Your task to perform on an android device: open the mobile data screen to see how much data has been used Image 0: 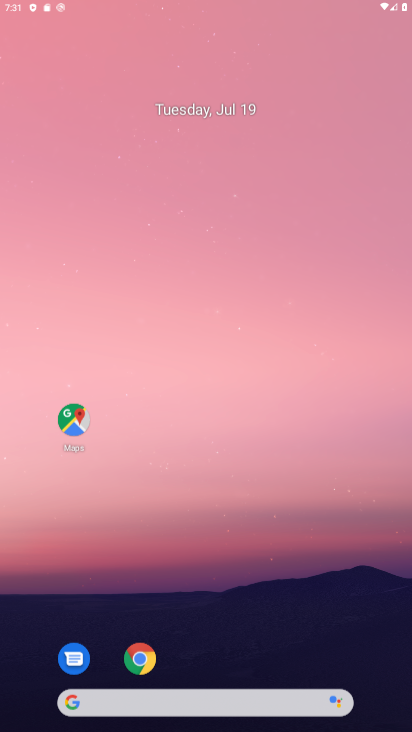
Step 0: drag from (220, 367) to (230, 86)
Your task to perform on an android device: open the mobile data screen to see how much data has been used Image 1: 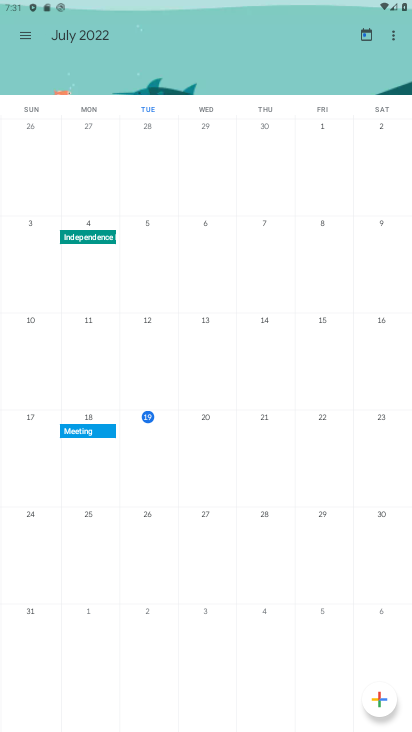
Step 1: press home button
Your task to perform on an android device: open the mobile data screen to see how much data has been used Image 2: 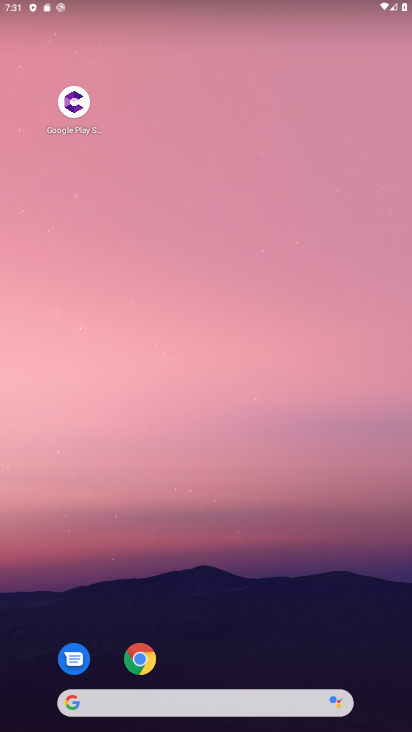
Step 2: drag from (234, 682) to (218, 339)
Your task to perform on an android device: open the mobile data screen to see how much data has been used Image 3: 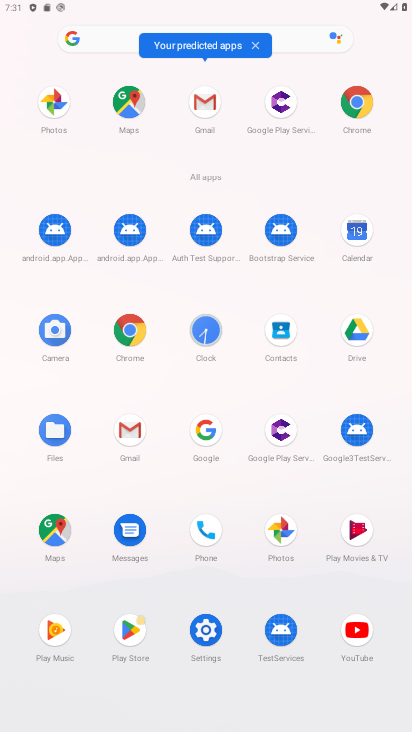
Step 3: click (210, 631)
Your task to perform on an android device: open the mobile data screen to see how much data has been used Image 4: 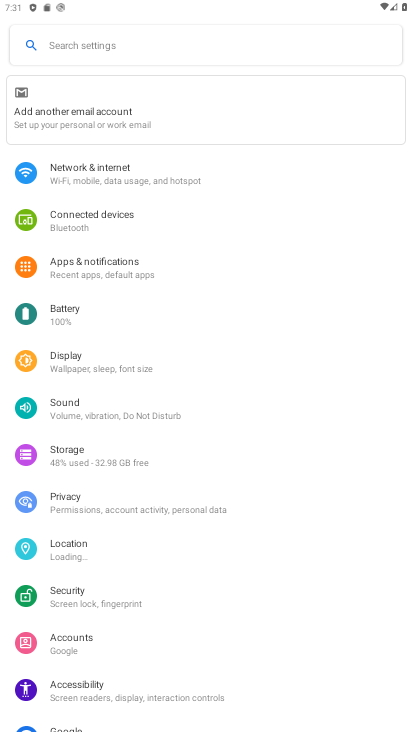
Step 4: click (69, 176)
Your task to perform on an android device: open the mobile data screen to see how much data has been used Image 5: 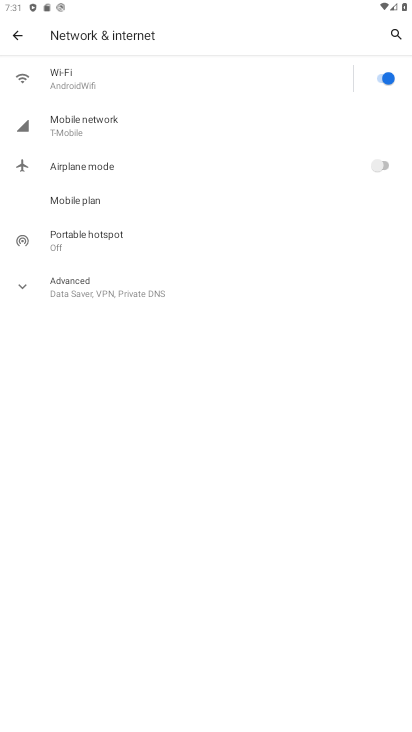
Step 5: click (76, 120)
Your task to perform on an android device: open the mobile data screen to see how much data has been used Image 6: 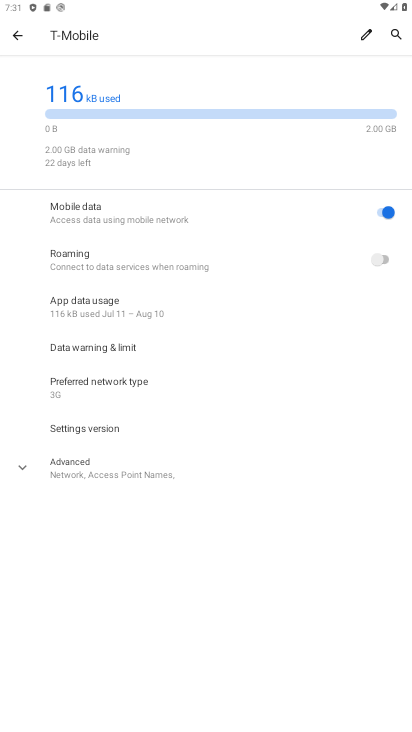
Step 6: click (26, 465)
Your task to perform on an android device: open the mobile data screen to see how much data has been used Image 7: 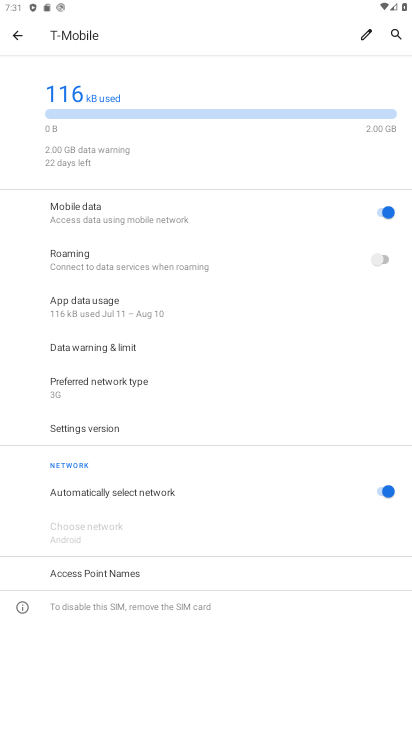
Step 7: task complete